Your task to perform on an android device: Go to accessibility settings Image 0: 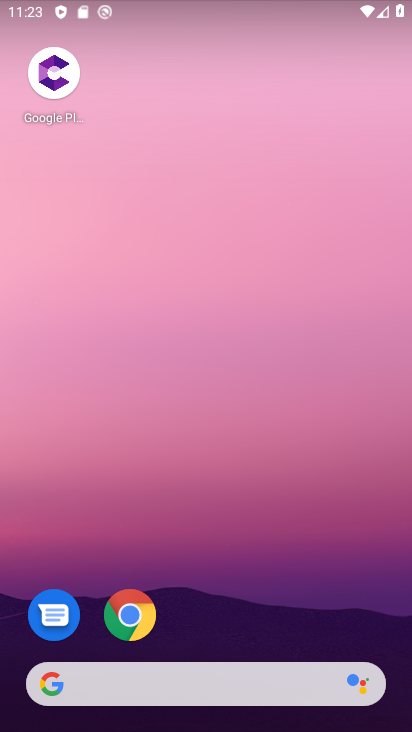
Step 0: drag from (287, 596) to (137, 3)
Your task to perform on an android device: Go to accessibility settings Image 1: 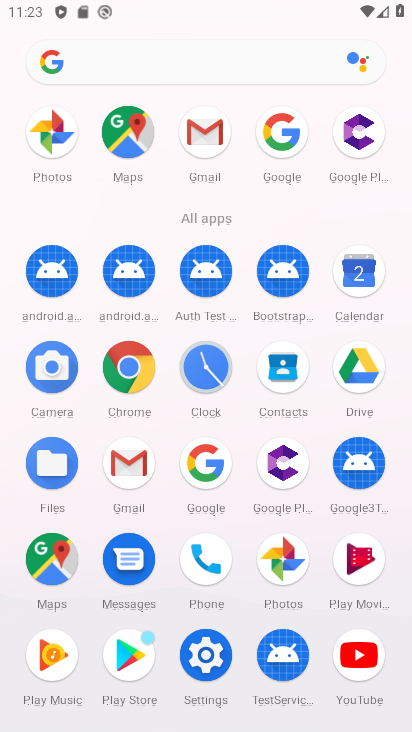
Step 1: click (219, 660)
Your task to perform on an android device: Go to accessibility settings Image 2: 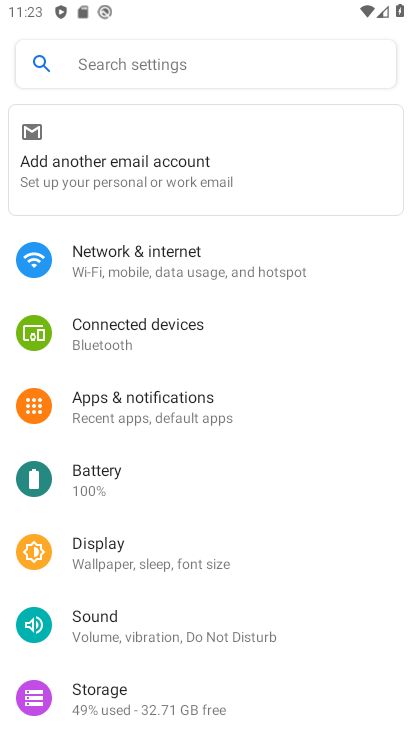
Step 2: drag from (237, 614) to (207, 23)
Your task to perform on an android device: Go to accessibility settings Image 3: 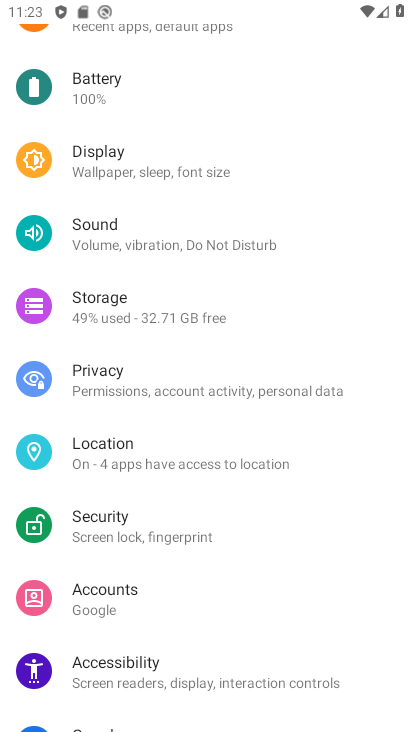
Step 3: click (202, 668)
Your task to perform on an android device: Go to accessibility settings Image 4: 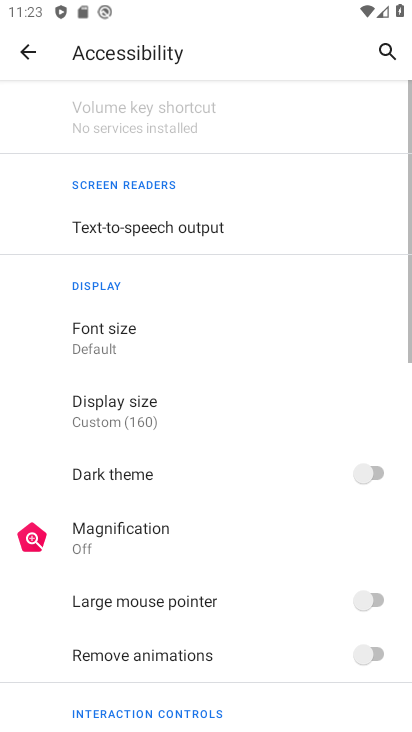
Step 4: task complete